Your task to perform on an android device: add a contact Image 0: 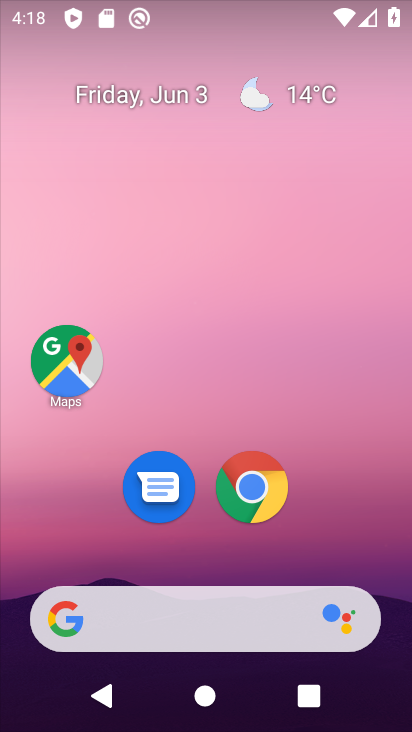
Step 0: drag from (218, 531) to (322, 28)
Your task to perform on an android device: add a contact Image 1: 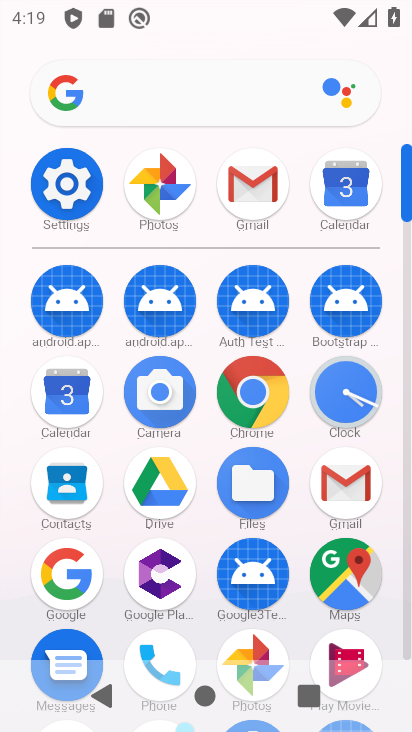
Step 1: click (72, 496)
Your task to perform on an android device: add a contact Image 2: 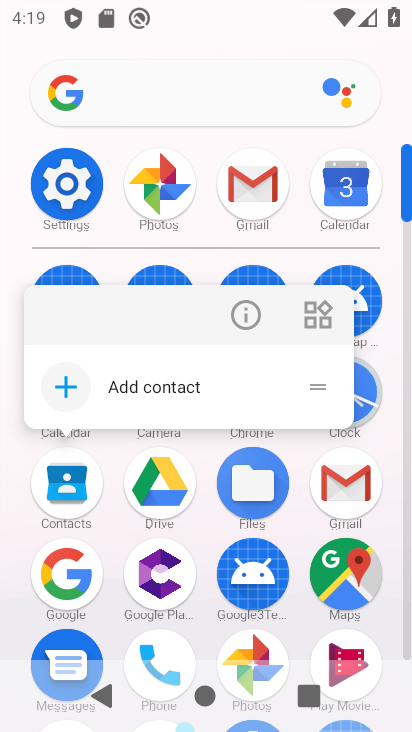
Step 2: click (71, 485)
Your task to perform on an android device: add a contact Image 3: 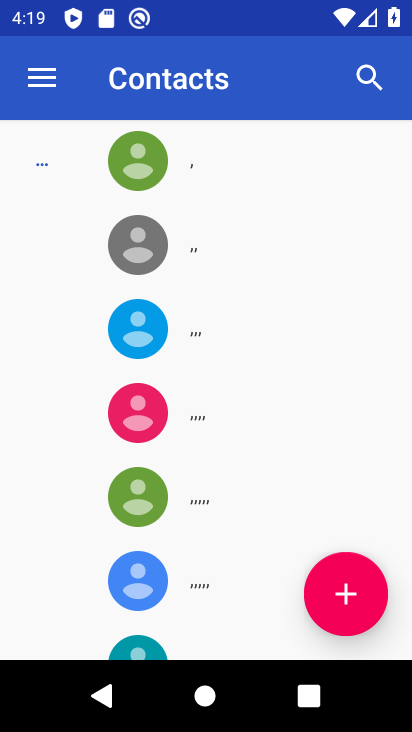
Step 3: click (327, 597)
Your task to perform on an android device: add a contact Image 4: 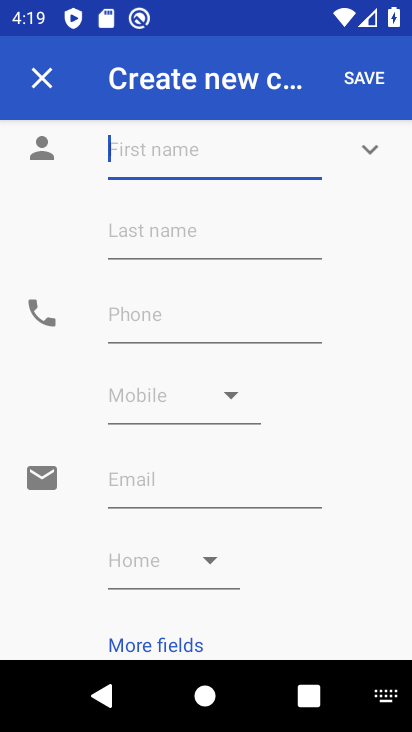
Step 4: click (190, 157)
Your task to perform on an android device: add a contact Image 5: 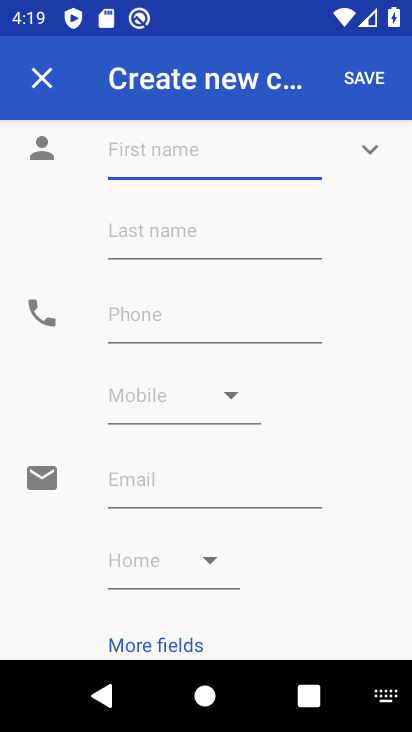
Step 5: type "fbfb"
Your task to perform on an android device: add a contact Image 6: 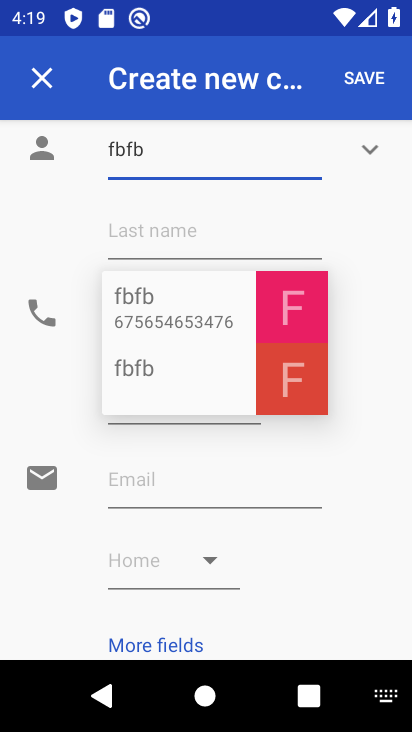
Step 6: click (139, 317)
Your task to perform on an android device: add a contact Image 7: 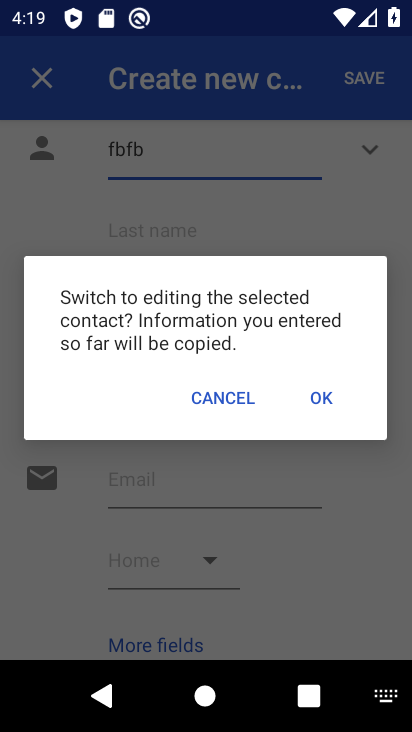
Step 7: click (350, 406)
Your task to perform on an android device: add a contact Image 8: 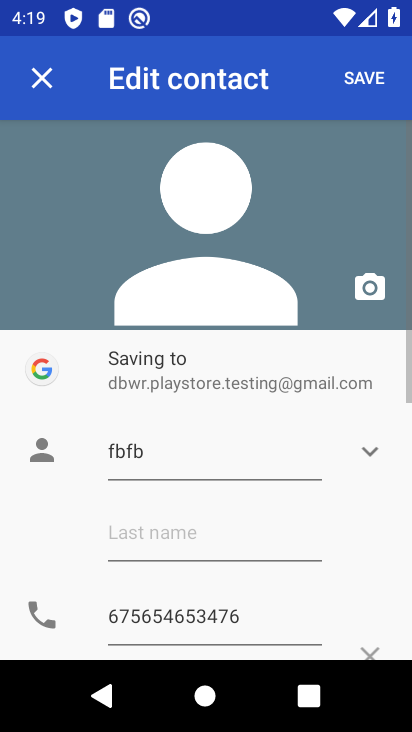
Step 8: click (379, 73)
Your task to perform on an android device: add a contact Image 9: 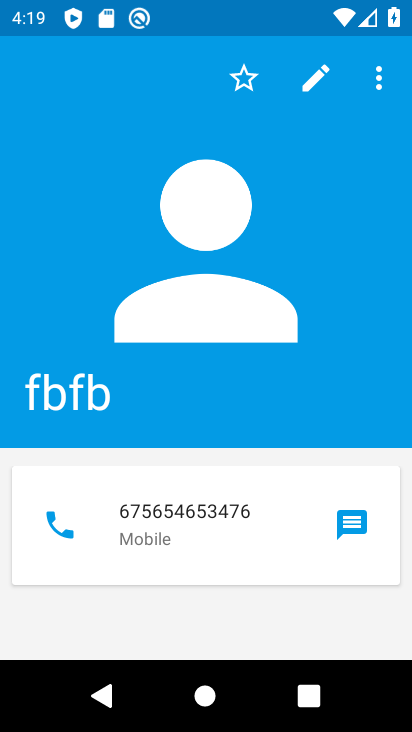
Step 9: task complete